Your task to perform on an android device: open app "DuckDuckGo Privacy Browser" (install if not already installed) Image 0: 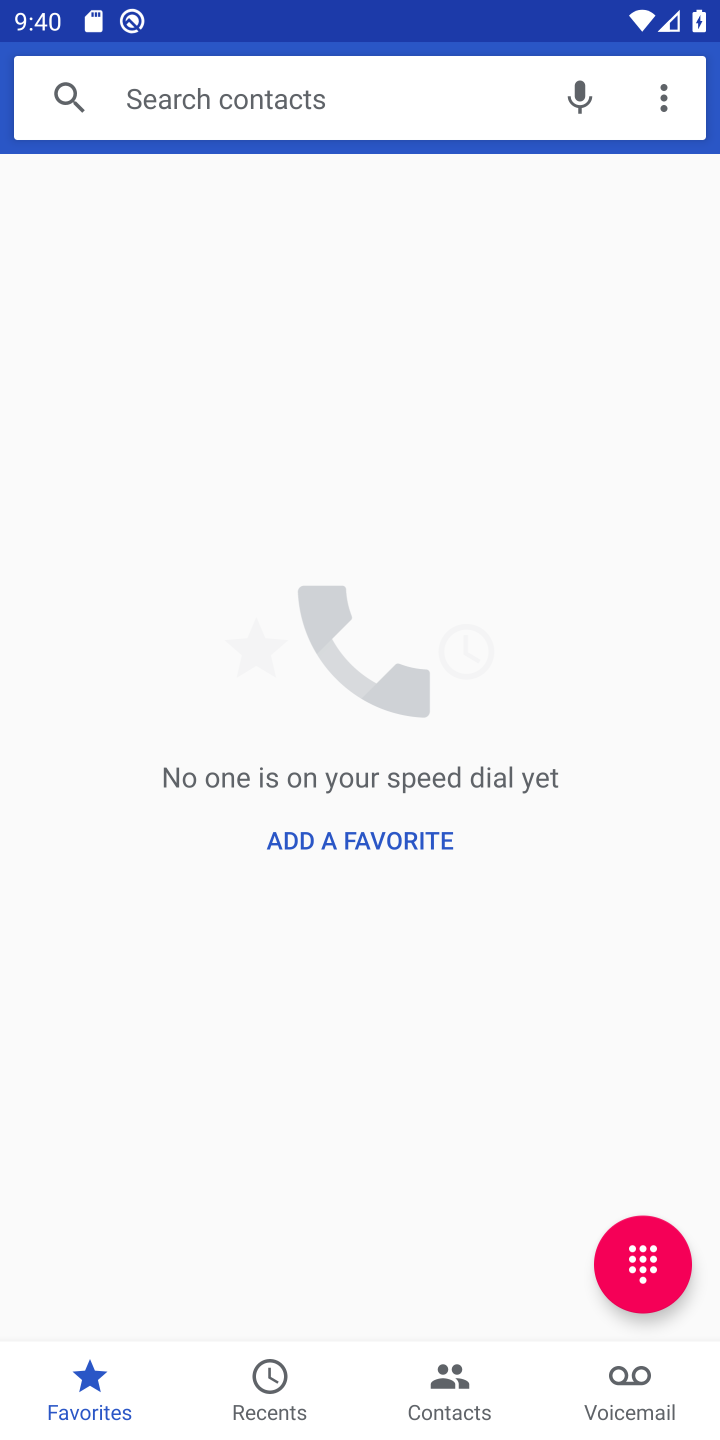
Step 0: press home button
Your task to perform on an android device: open app "DuckDuckGo Privacy Browser" (install if not already installed) Image 1: 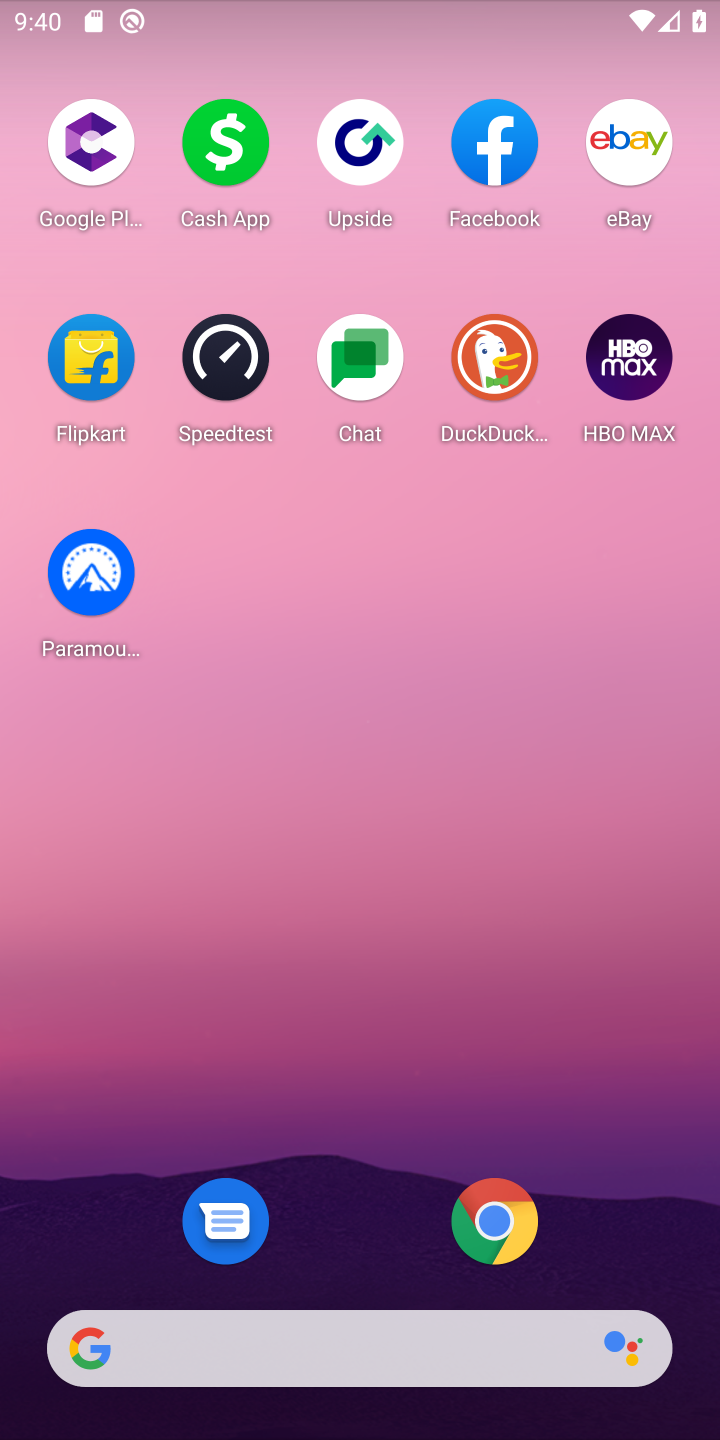
Step 1: drag from (313, 1036) to (357, 157)
Your task to perform on an android device: open app "DuckDuckGo Privacy Browser" (install if not already installed) Image 2: 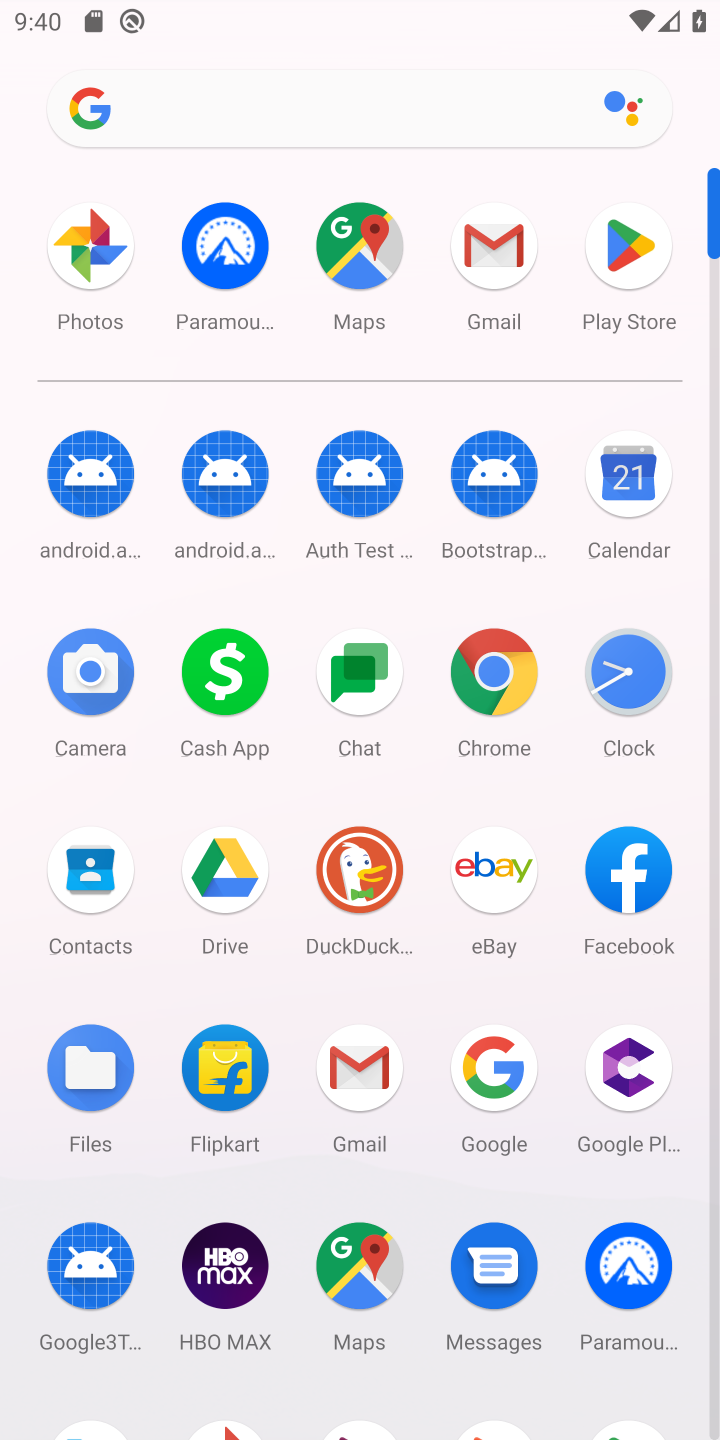
Step 2: click (616, 220)
Your task to perform on an android device: open app "DuckDuckGo Privacy Browser" (install if not already installed) Image 3: 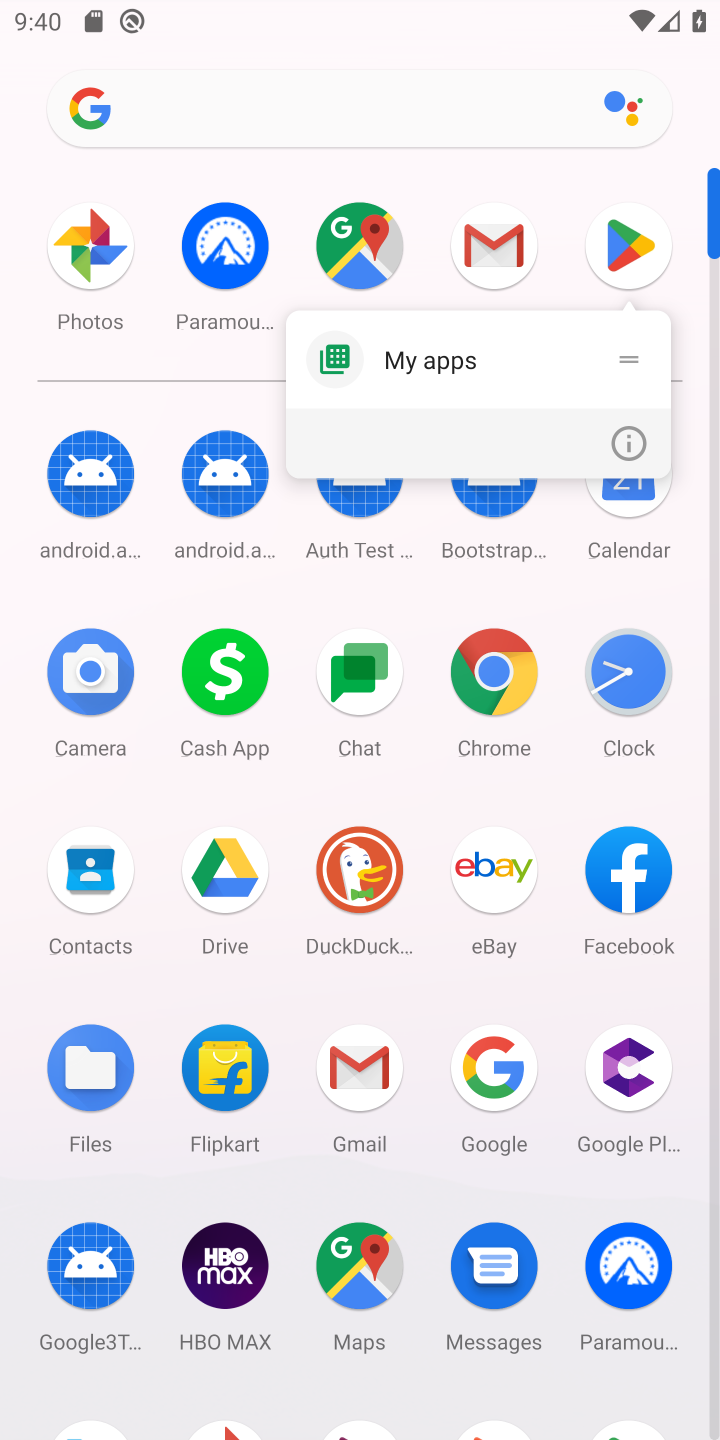
Step 3: click (616, 220)
Your task to perform on an android device: open app "DuckDuckGo Privacy Browser" (install if not already installed) Image 4: 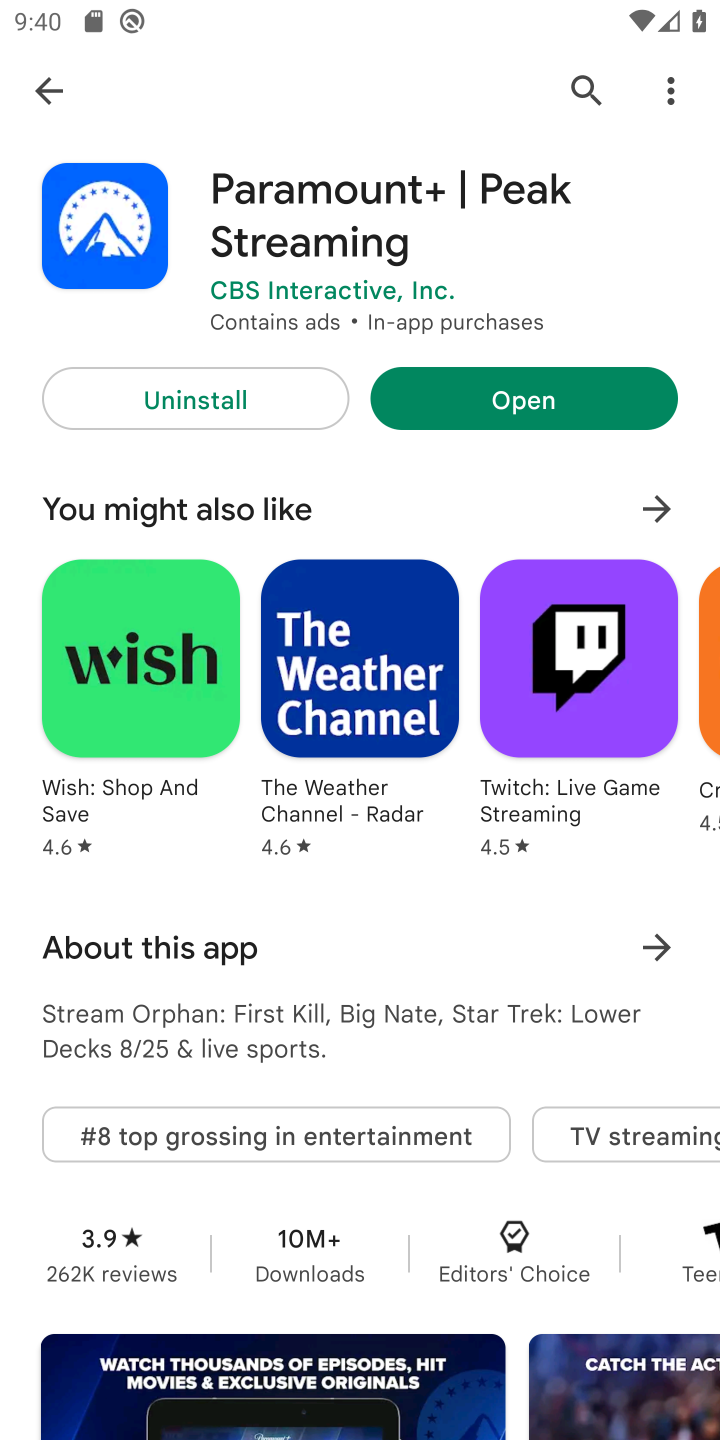
Step 4: click (583, 89)
Your task to perform on an android device: open app "DuckDuckGo Privacy Browser" (install if not already installed) Image 5: 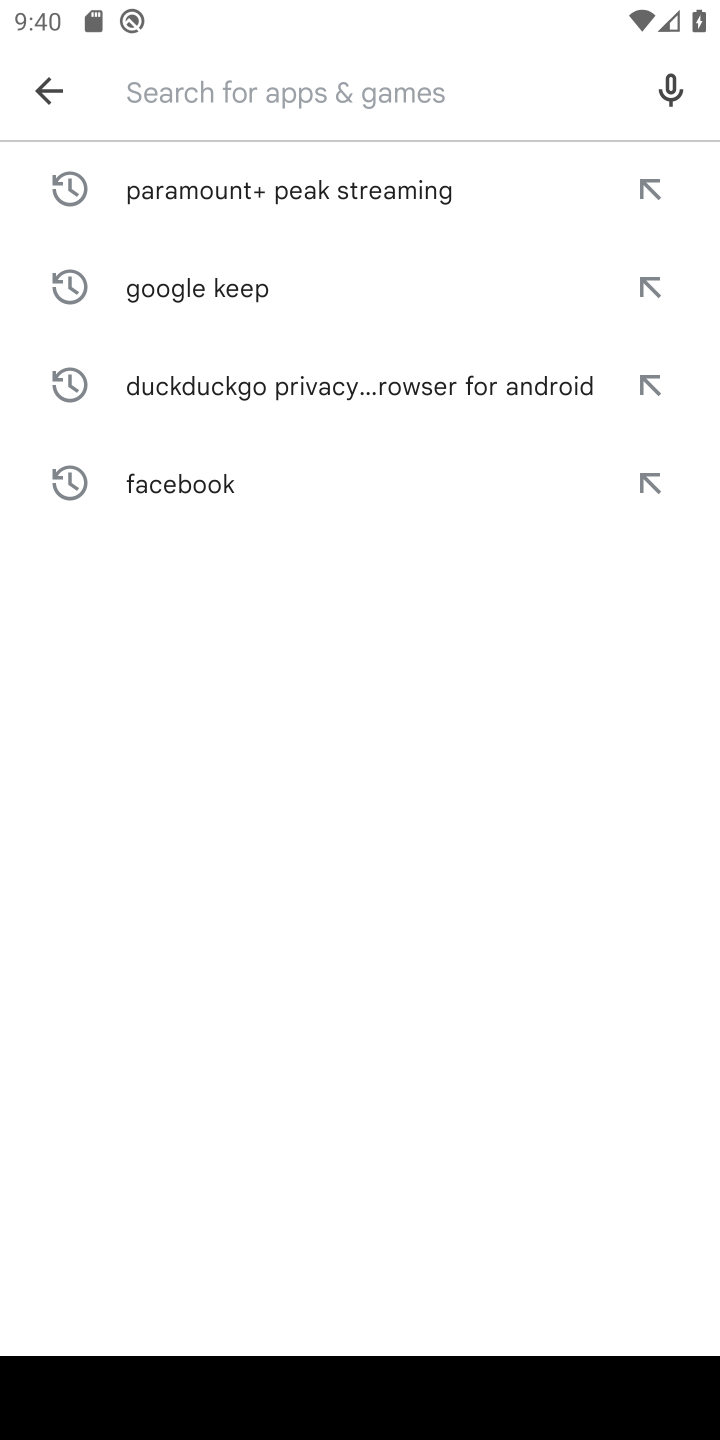
Step 5: type "DuckDuckGo Privacy Browser"
Your task to perform on an android device: open app "DuckDuckGo Privacy Browser" (install if not already installed) Image 6: 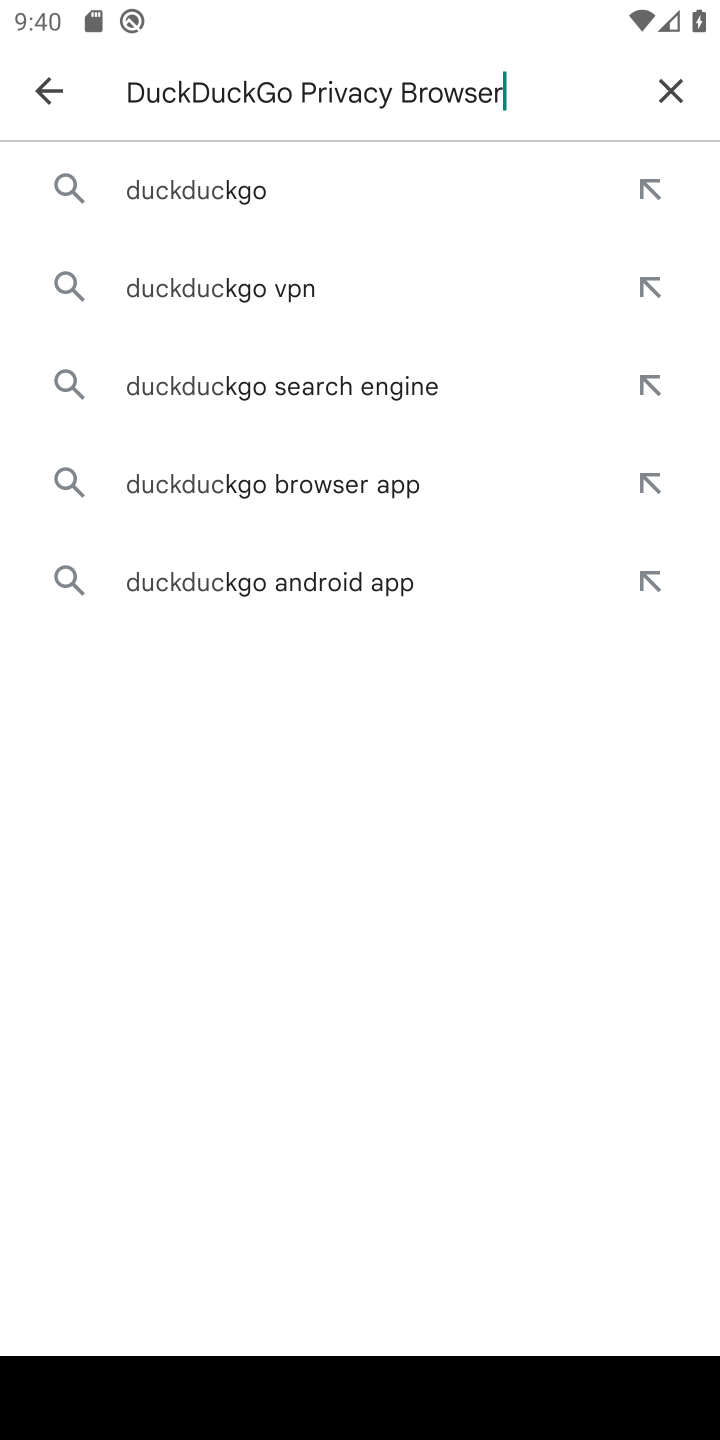
Step 6: type ""
Your task to perform on an android device: open app "DuckDuckGo Privacy Browser" (install if not already installed) Image 7: 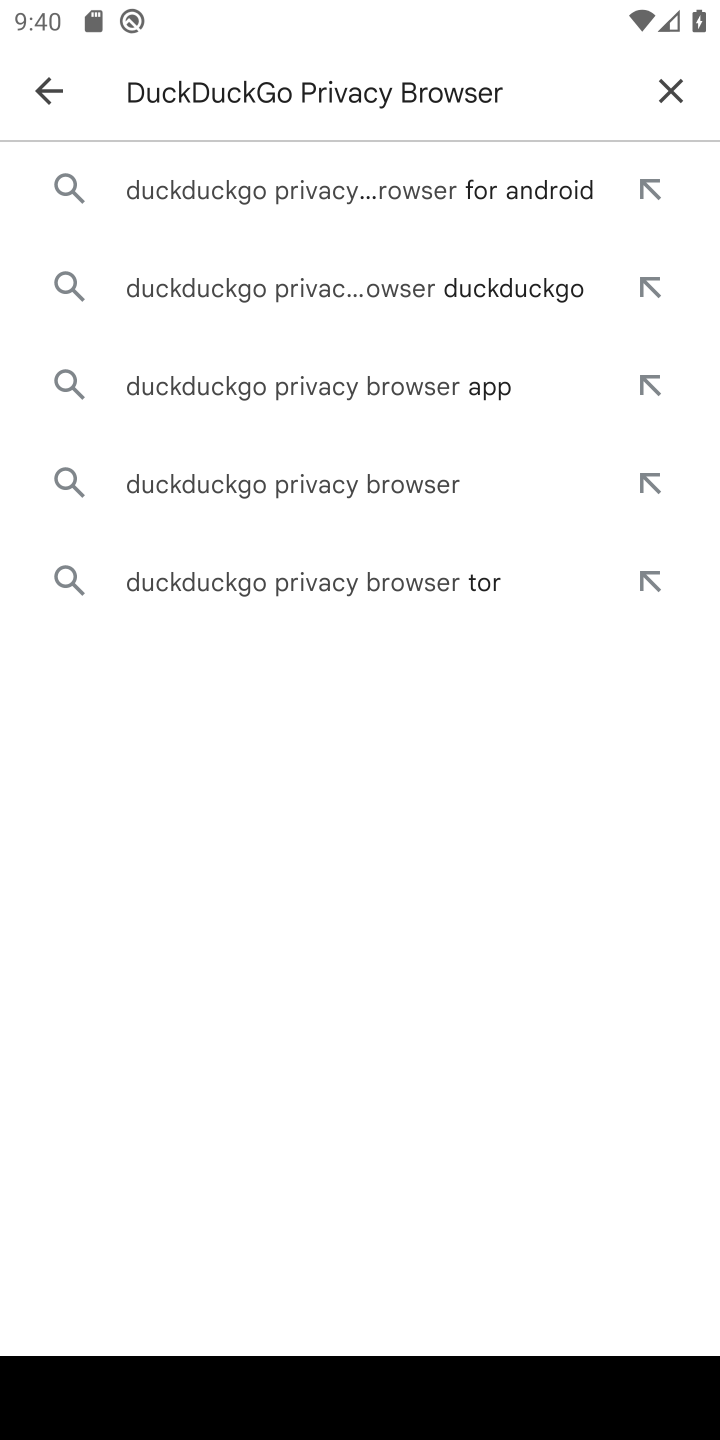
Step 7: click (274, 207)
Your task to perform on an android device: open app "DuckDuckGo Privacy Browser" (install if not already installed) Image 8: 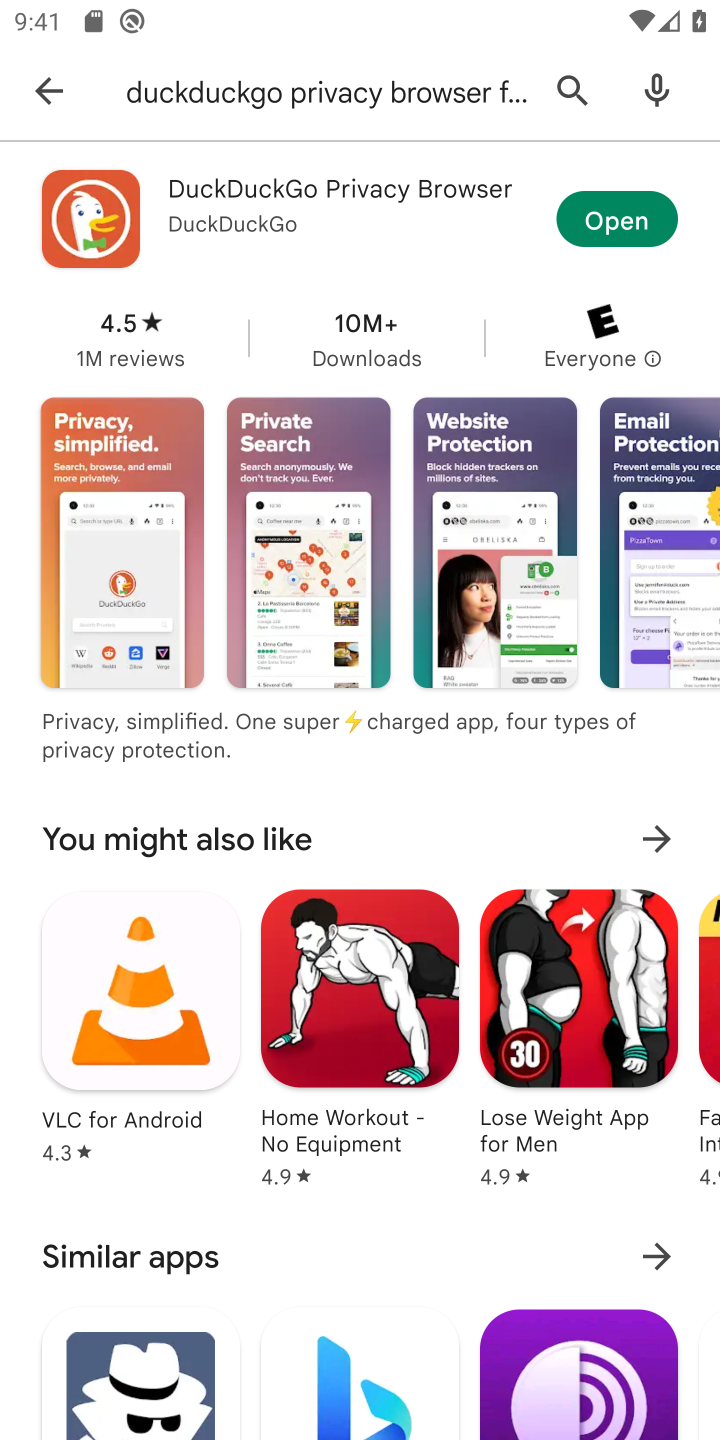
Step 8: click (585, 221)
Your task to perform on an android device: open app "DuckDuckGo Privacy Browser" (install if not already installed) Image 9: 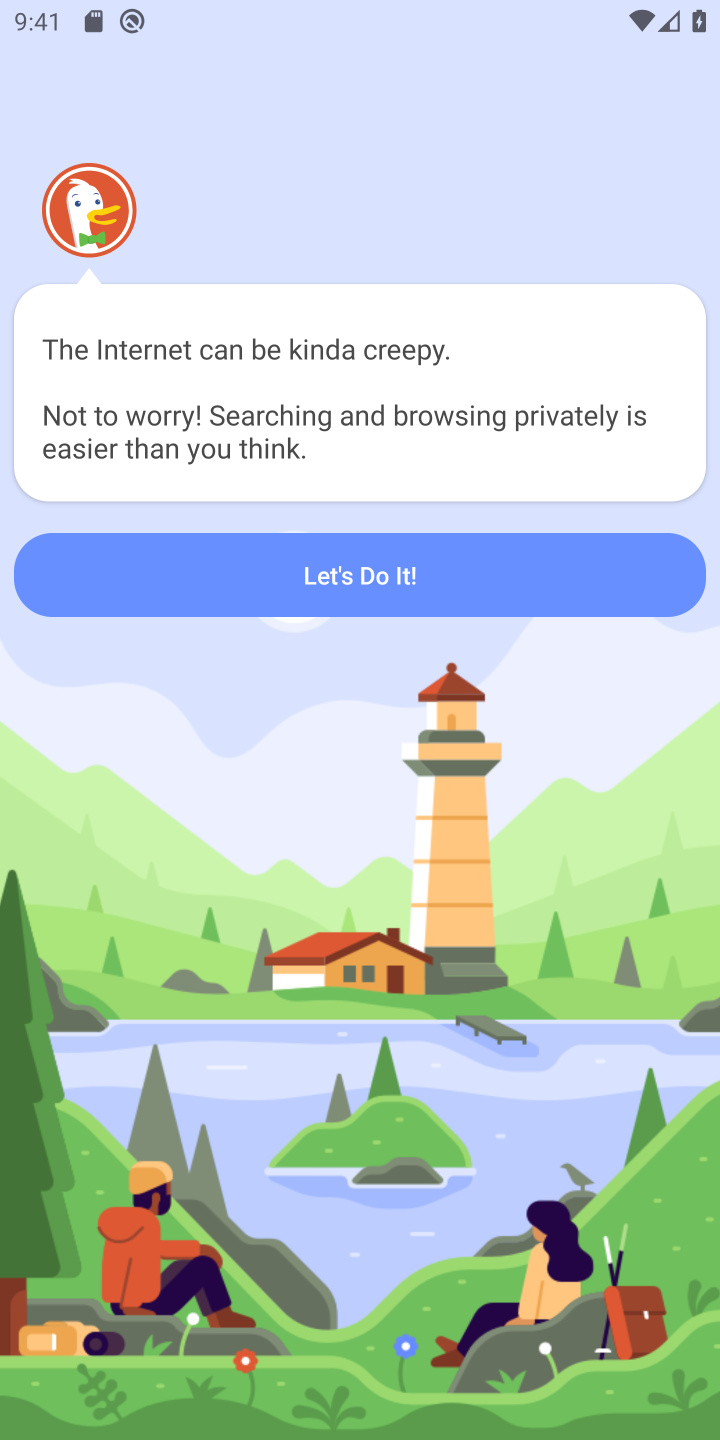
Step 9: task complete